Your task to perform on an android device: move a message to another label in the gmail app Image 0: 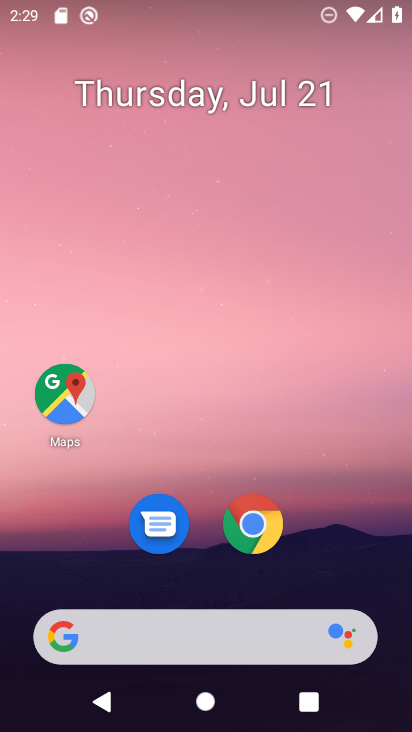
Step 0: press home button
Your task to perform on an android device: move a message to another label in the gmail app Image 1: 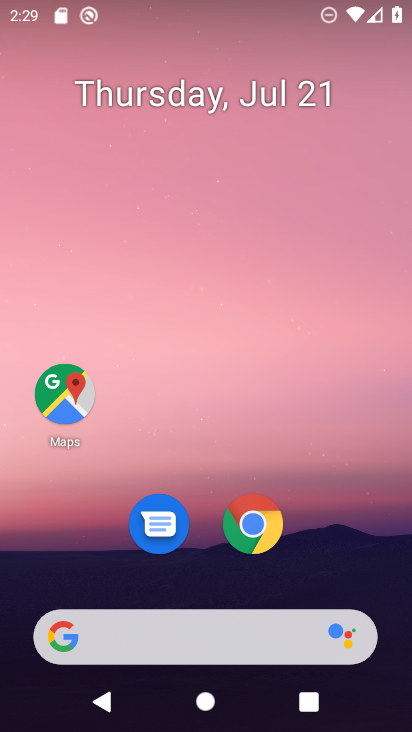
Step 1: drag from (189, 645) to (294, 182)
Your task to perform on an android device: move a message to another label in the gmail app Image 2: 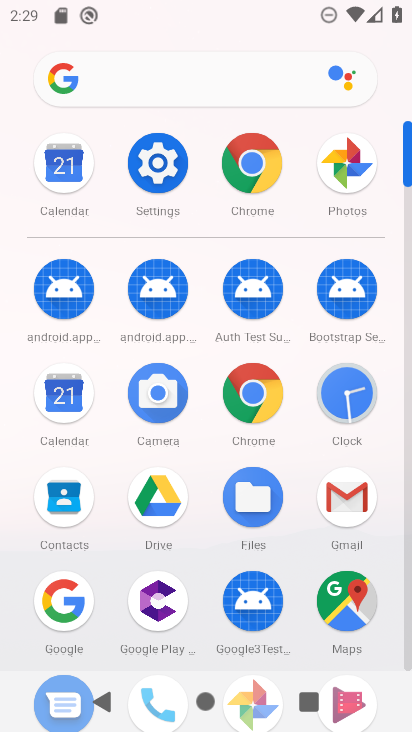
Step 2: click (343, 488)
Your task to perform on an android device: move a message to another label in the gmail app Image 3: 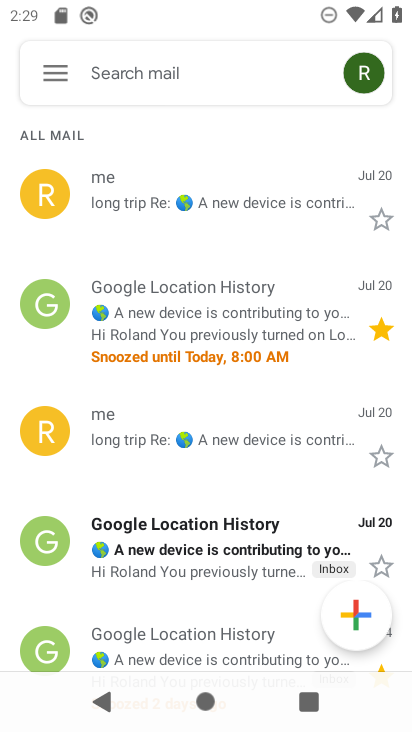
Step 3: click (66, 68)
Your task to perform on an android device: move a message to another label in the gmail app Image 4: 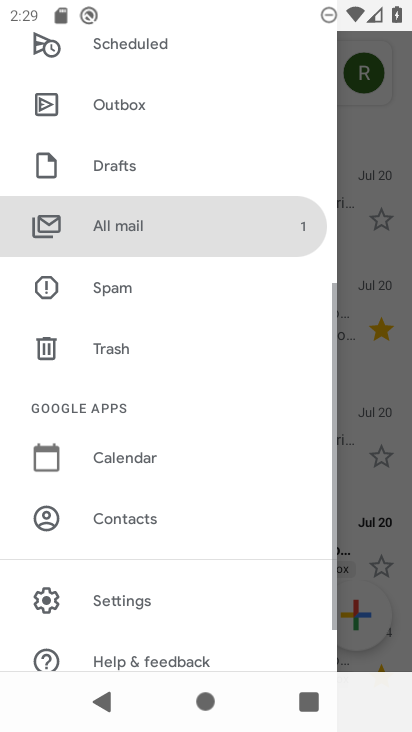
Step 4: drag from (238, 122) to (222, 536)
Your task to perform on an android device: move a message to another label in the gmail app Image 5: 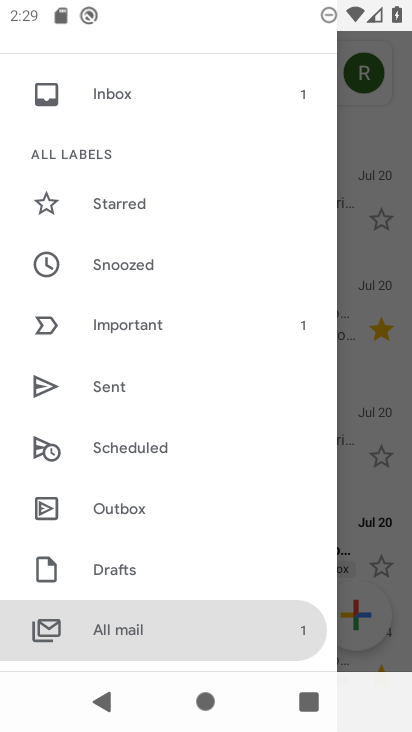
Step 5: drag from (207, 381) to (188, 521)
Your task to perform on an android device: move a message to another label in the gmail app Image 6: 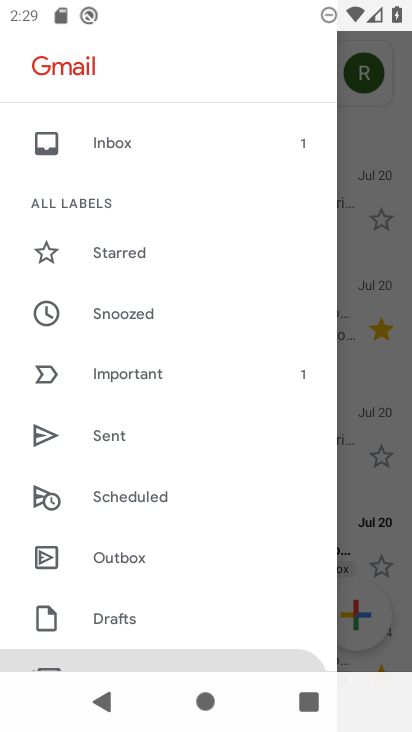
Step 6: click (148, 371)
Your task to perform on an android device: move a message to another label in the gmail app Image 7: 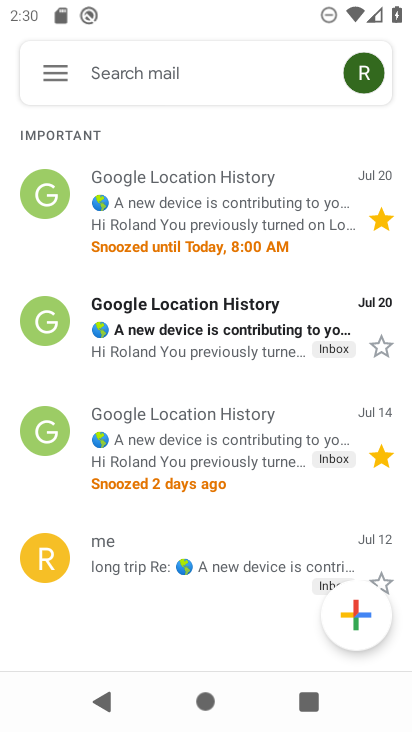
Step 7: click (220, 213)
Your task to perform on an android device: move a message to another label in the gmail app Image 8: 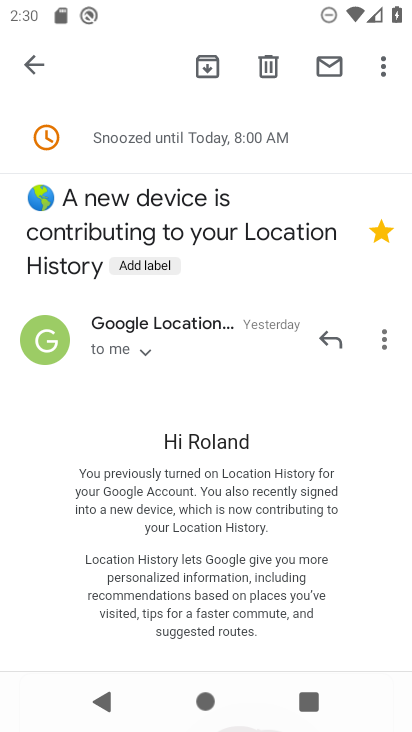
Step 8: click (154, 263)
Your task to perform on an android device: move a message to another label in the gmail app Image 9: 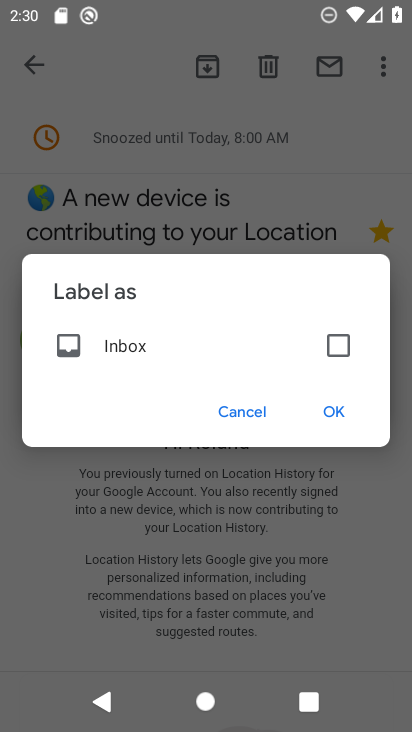
Step 9: click (335, 333)
Your task to perform on an android device: move a message to another label in the gmail app Image 10: 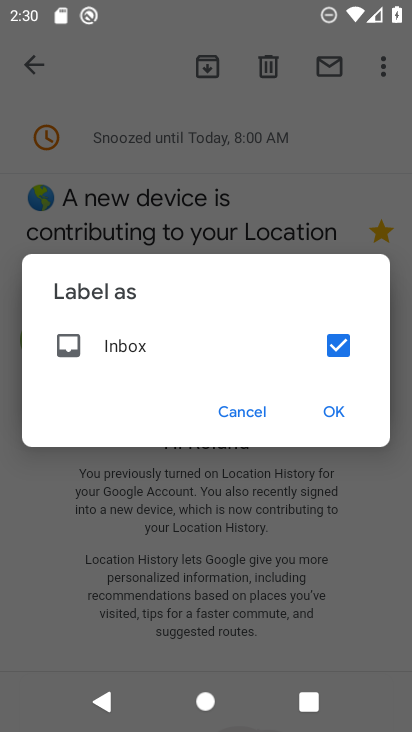
Step 10: click (341, 410)
Your task to perform on an android device: move a message to another label in the gmail app Image 11: 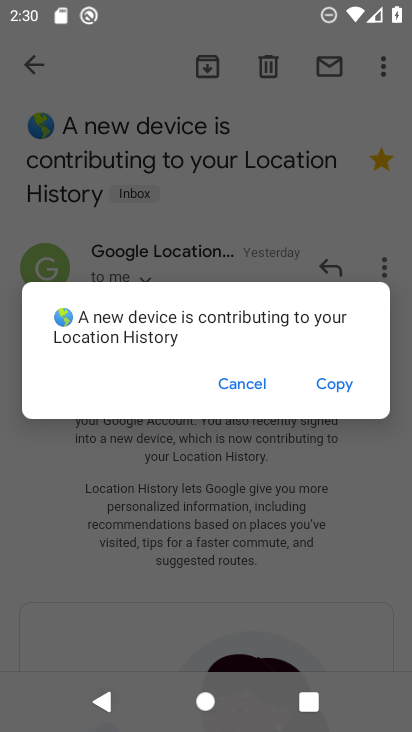
Step 11: click (254, 391)
Your task to perform on an android device: move a message to another label in the gmail app Image 12: 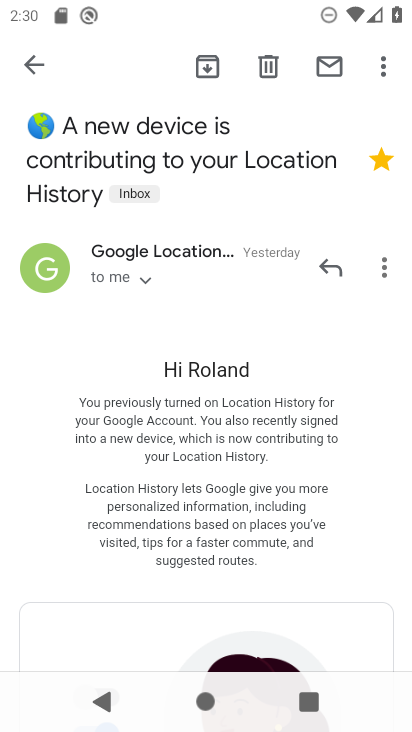
Step 12: task complete